Your task to perform on an android device: Go to ESPN.com Image 0: 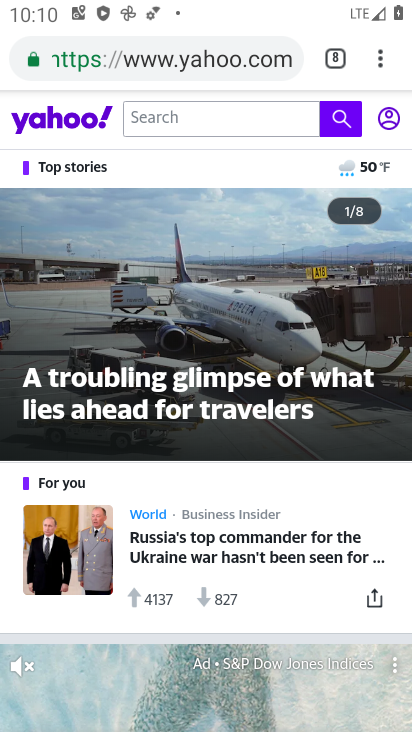
Step 0: press home button
Your task to perform on an android device: Go to ESPN.com Image 1: 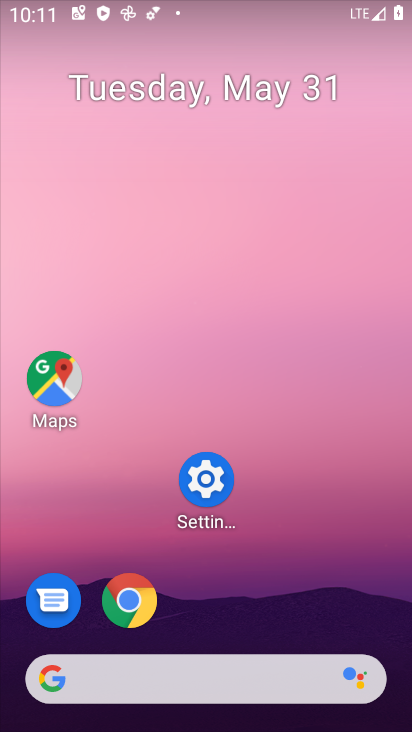
Step 1: click (141, 601)
Your task to perform on an android device: Go to ESPN.com Image 2: 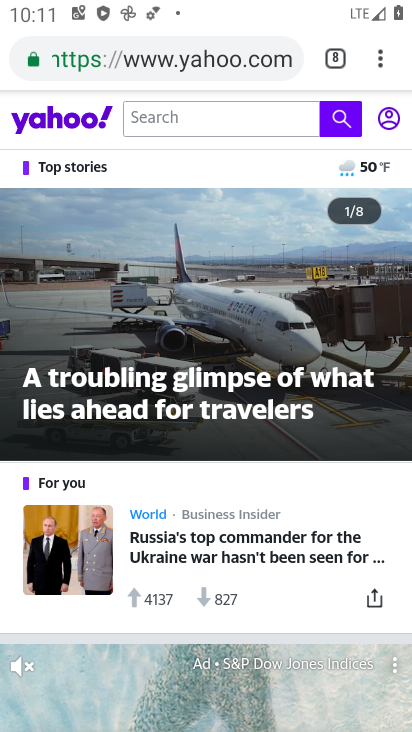
Step 2: click (331, 62)
Your task to perform on an android device: Go to ESPN.com Image 3: 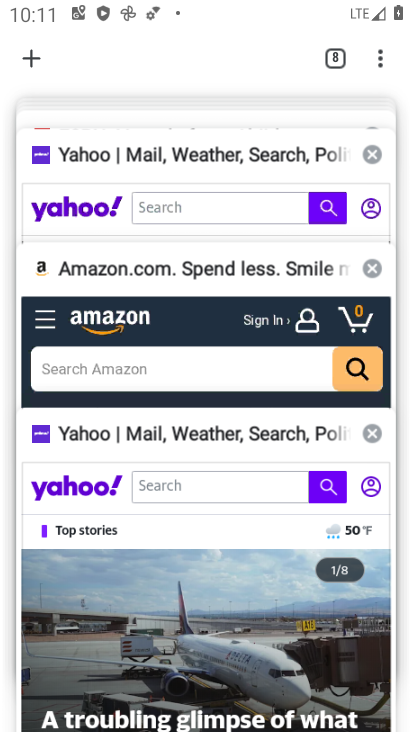
Step 3: click (34, 61)
Your task to perform on an android device: Go to ESPN.com Image 4: 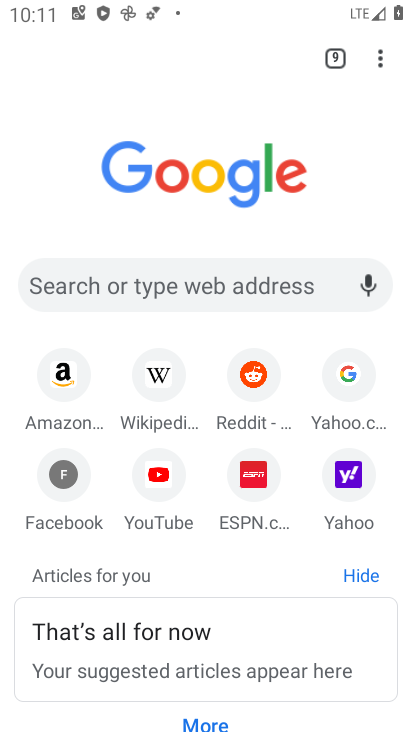
Step 4: click (249, 483)
Your task to perform on an android device: Go to ESPN.com Image 5: 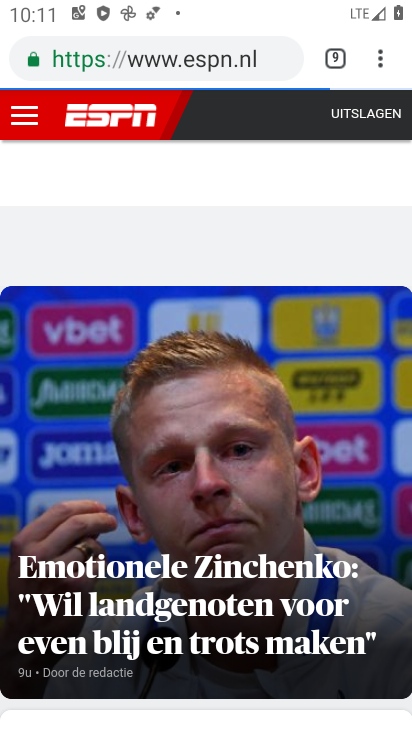
Step 5: task complete